Your task to perform on an android device: set an alarm Image 0: 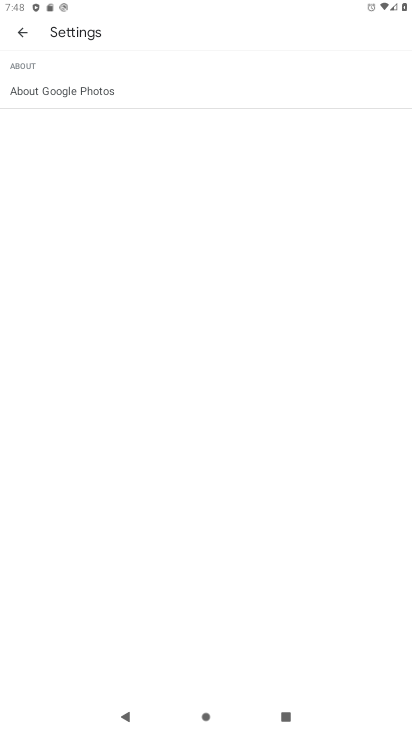
Step 0: press home button
Your task to perform on an android device: set an alarm Image 1: 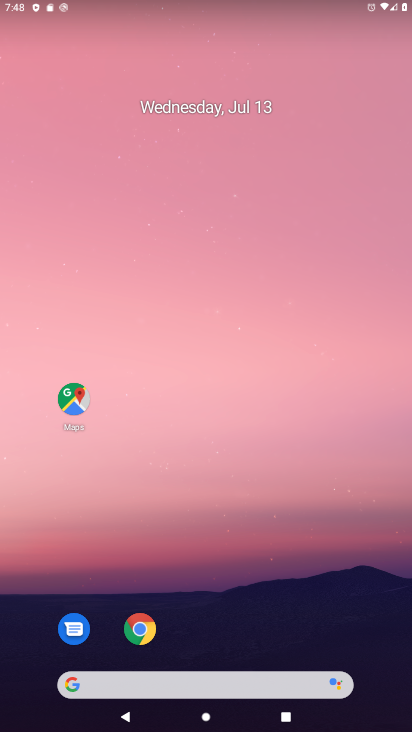
Step 1: drag from (317, 536) to (388, 52)
Your task to perform on an android device: set an alarm Image 2: 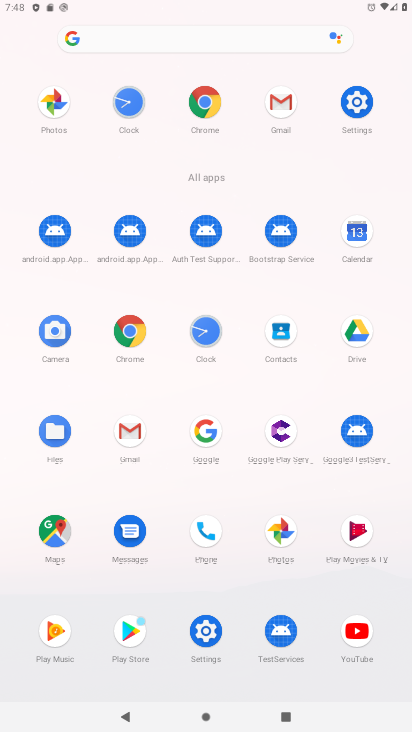
Step 2: click (211, 331)
Your task to perform on an android device: set an alarm Image 3: 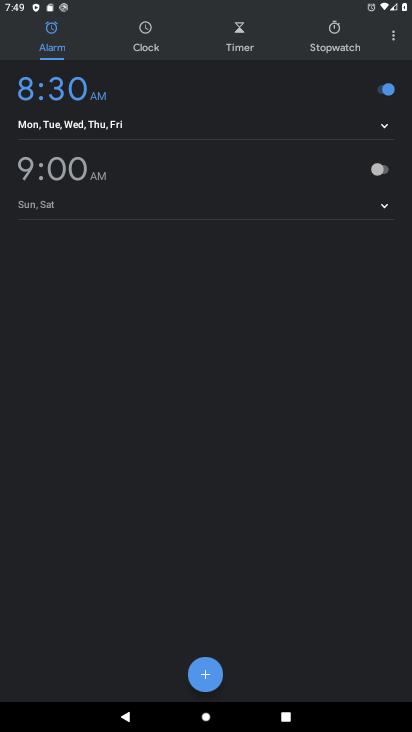
Step 3: click (382, 179)
Your task to perform on an android device: set an alarm Image 4: 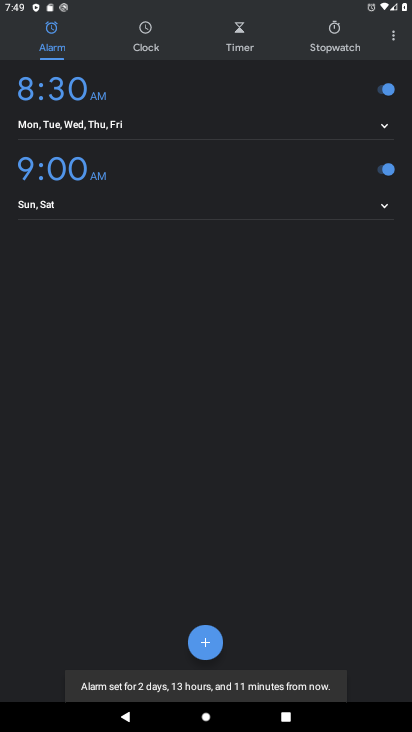
Step 4: task complete